Your task to perform on an android device: Open wifi settings Image 0: 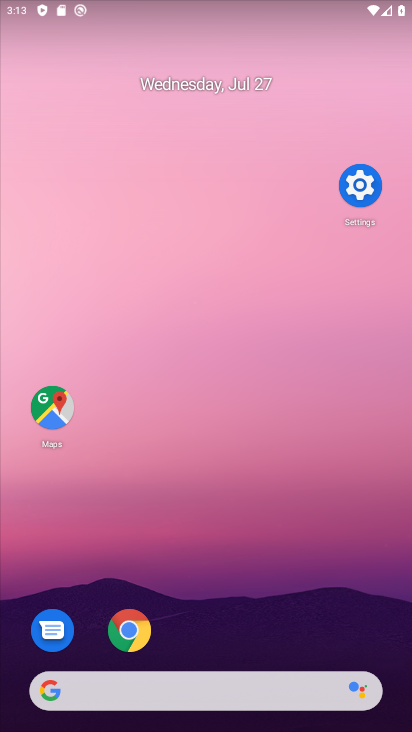
Step 0: press home button
Your task to perform on an android device: Open wifi settings Image 1: 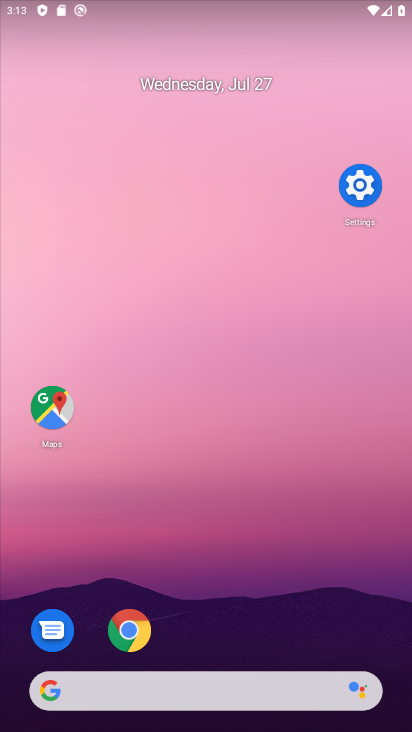
Step 1: drag from (239, 656) to (193, 157)
Your task to perform on an android device: Open wifi settings Image 2: 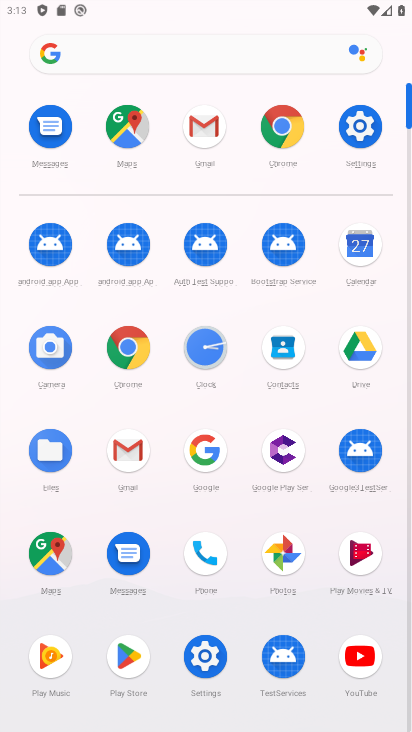
Step 2: click (376, 128)
Your task to perform on an android device: Open wifi settings Image 3: 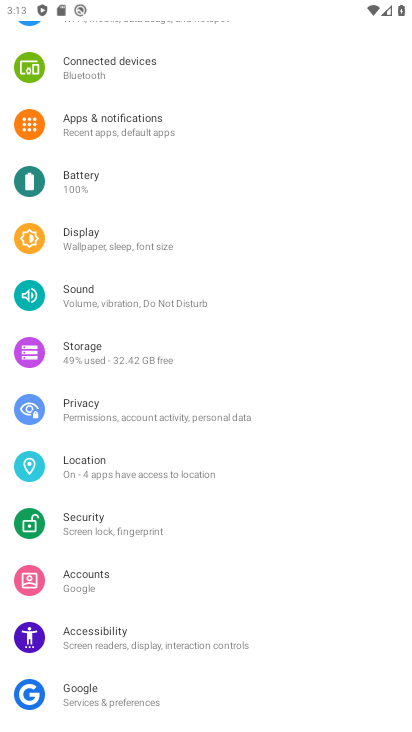
Step 3: drag from (165, 83) to (126, 431)
Your task to perform on an android device: Open wifi settings Image 4: 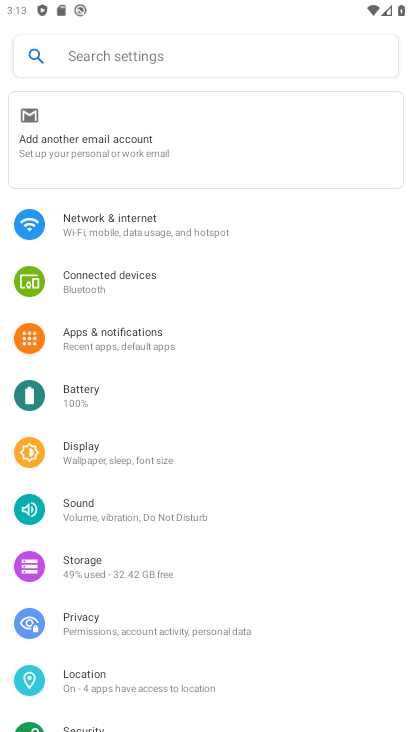
Step 4: click (85, 225)
Your task to perform on an android device: Open wifi settings Image 5: 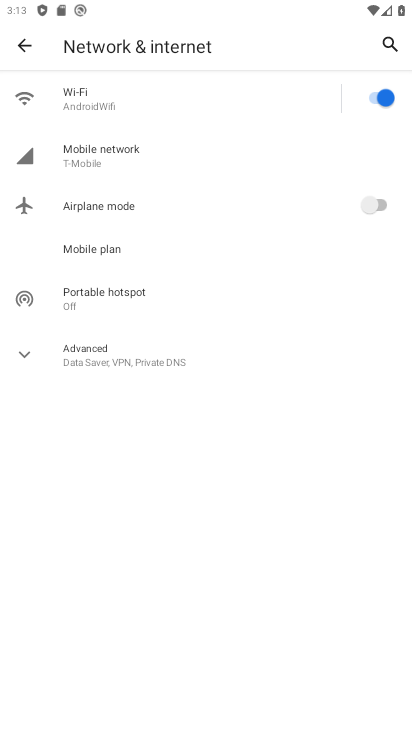
Step 5: click (169, 87)
Your task to perform on an android device: Open wifi settings Image 6: 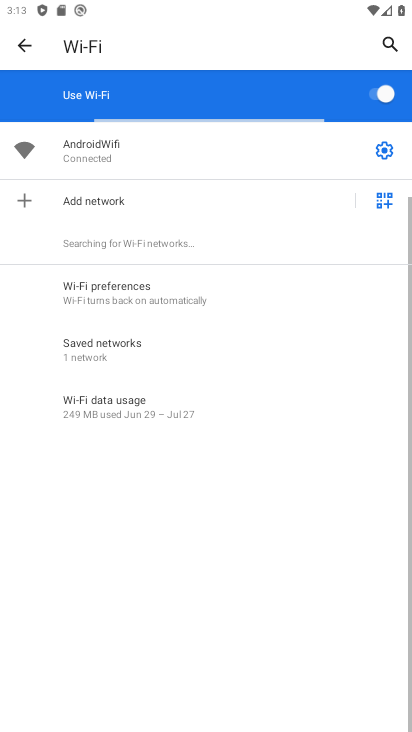
Step 6: task complete